Your task to perform on an android device: toggle translation in the chrome app Image 0: 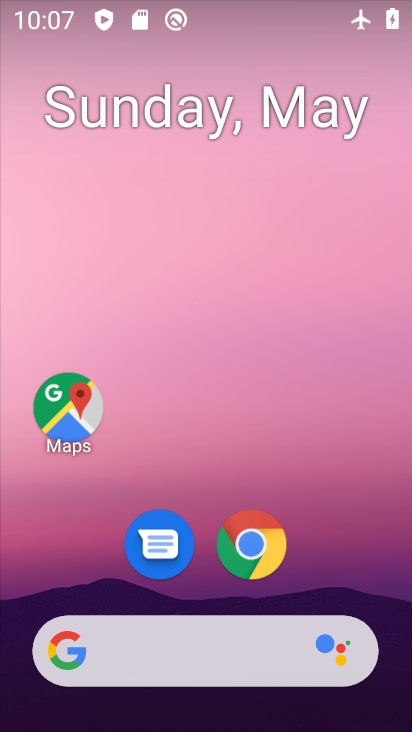
Step 0: drag from (318, 503) to (325, 232)
Your task to perform on an android device: toggle translation in the chrome app Image 1: 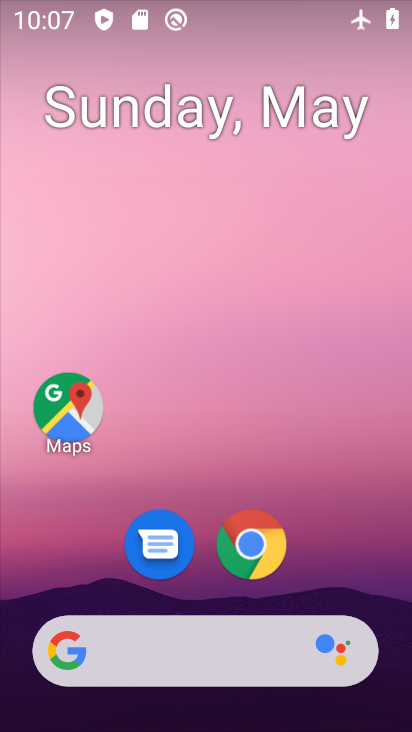
Step 1: drag from (326, 550) to (296, 181)
Your task to perform on an android device: toggle translation in the chrome app Image 2: 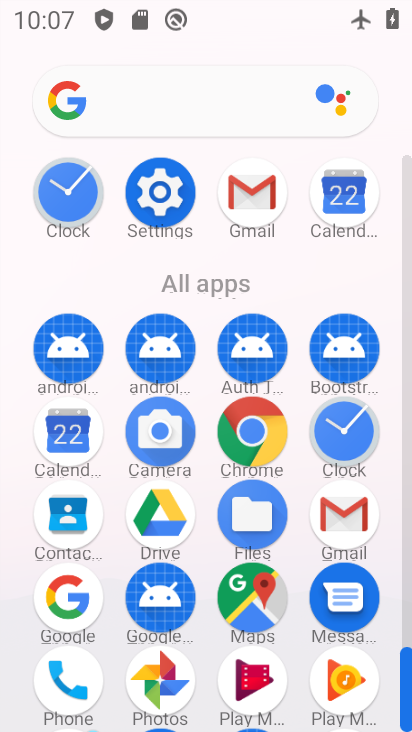
Step 2: click (258, 442)
Your task to perform on an android device: toggle translation in the chrome app Image 3: 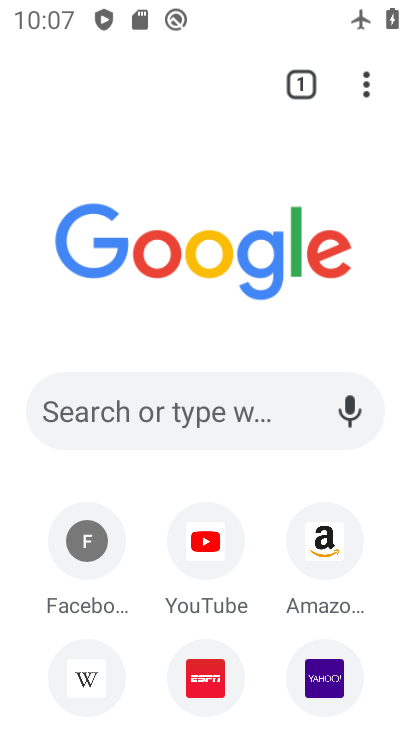
Step 3: click (356, 88)
Your task to perform on an android device: toggle translation in the chrome app Image 4: 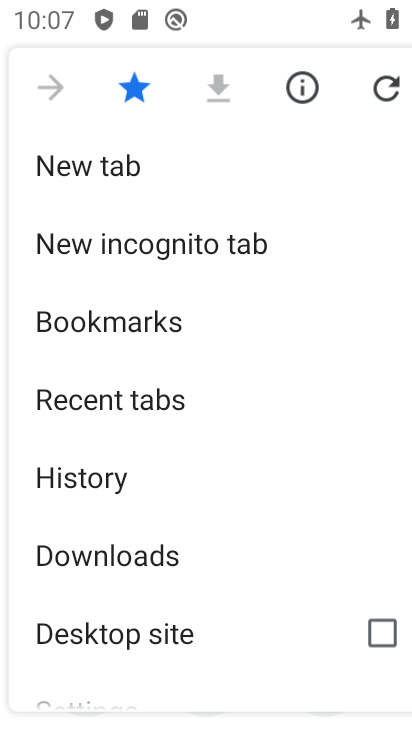
Step 4: drag from (168, 619) to (240, 192)
Your task to perform on an android device: toggle translation in the chrome app Image 5: 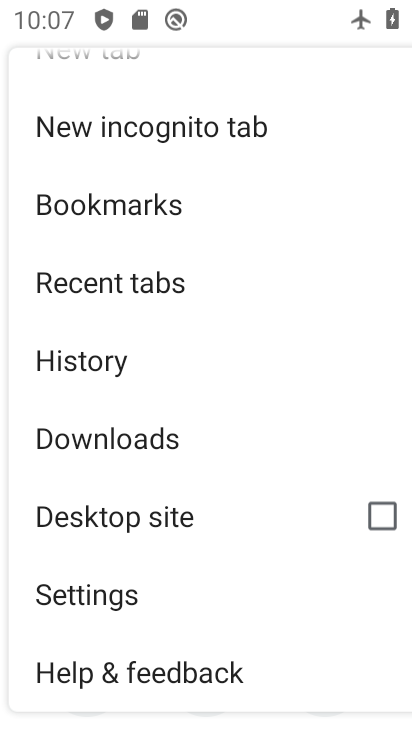
Step 5: click (85, 597)
Your task to perform on an android device: toggle translation in the chrome app Image 6: 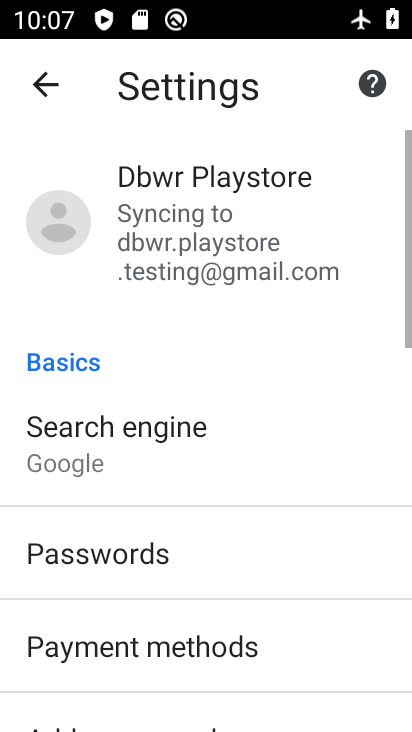
Step 6: drag from (237, 622) to (303, 157)
Your task to perform on an android device: toggle translation in the chrome app Image 7: 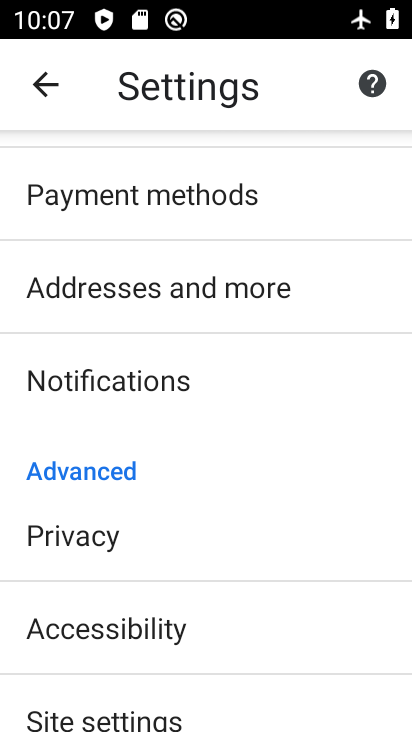
Step 7: drag from (173, 683) to (259, 245)
Your task to perform on an android device: toggle translation in the chrome app Image 8: 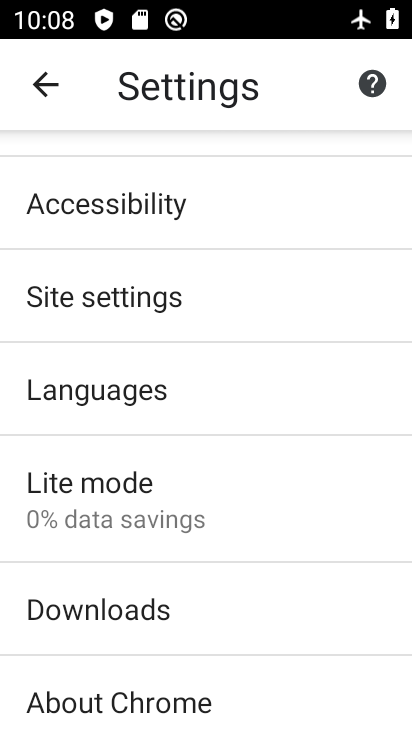
Step 8: click (205, 397)
Your task to perform on an android device: toggle translation in the chrome app Image 9: 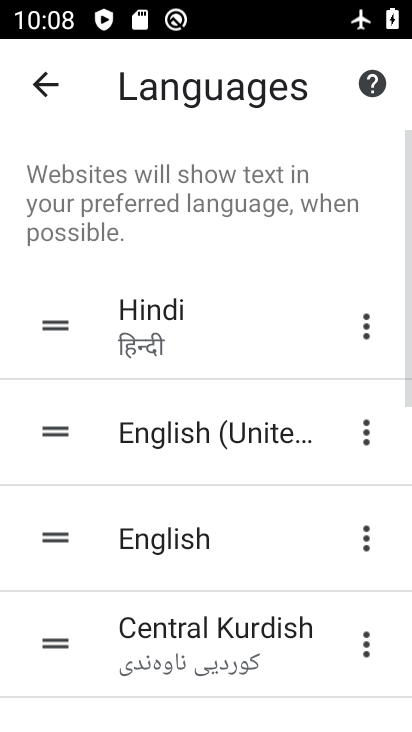
Step 9: drag from (264, 661) to (306, 246)
Your task to perform on an android device: toggle translation in the chrome app Image 10: 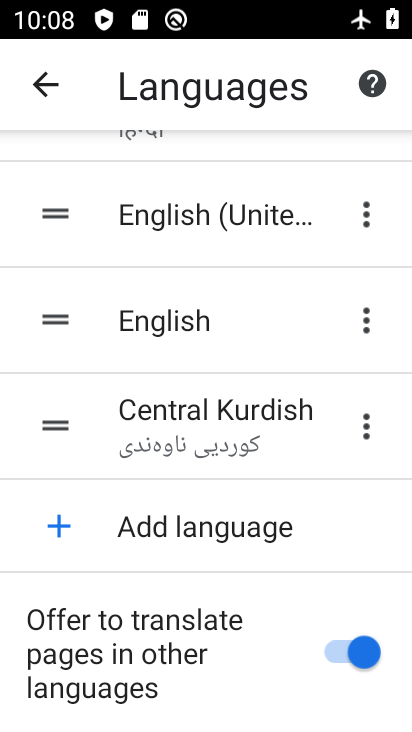
Step 10: click (325, 651)
Your task to perform on an android device: toggle translation in the chrome app Image 11: 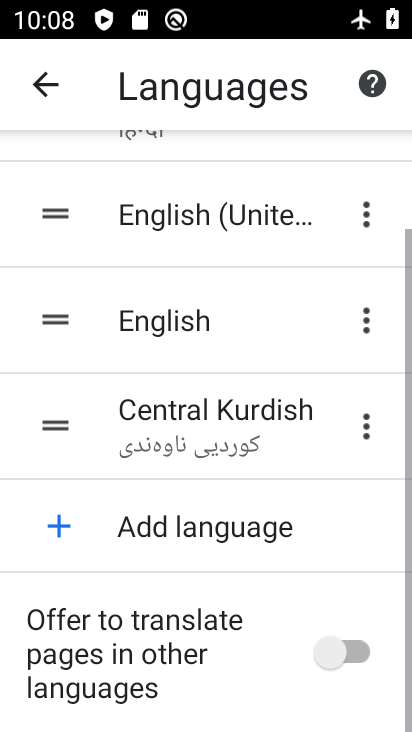
Step 11: task complete